Your task to perform on an android device: Go to notification settings Image 0: 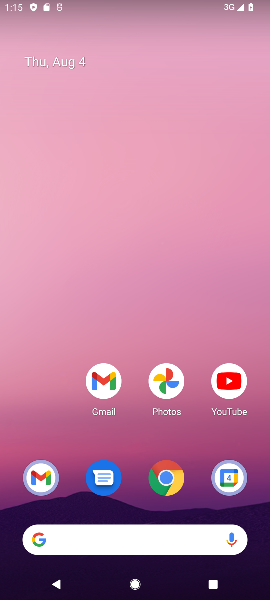
Step 0: drag from (114, 436) to (187, 83)
Your task to perform on an android device: Go to notification settings Image 1: 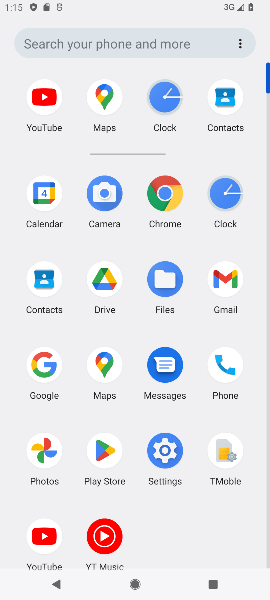
Step 1: click (173, 470)
Your task to perform on an android device: Go to notification settings Image 2: 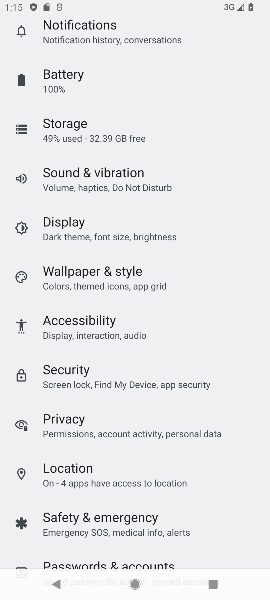
Step 2: click (77, 26)
Your task to perform on an android device: Go to notification settings Image 3: 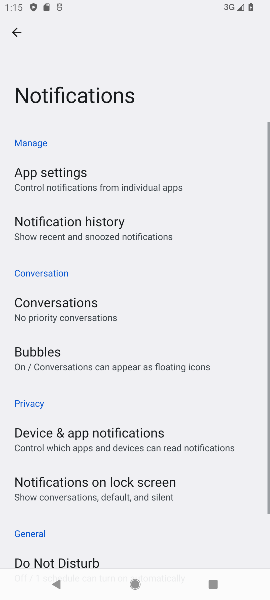
Step 3: task complete